Your task to perform on an android device: Open battery settings Image 0: 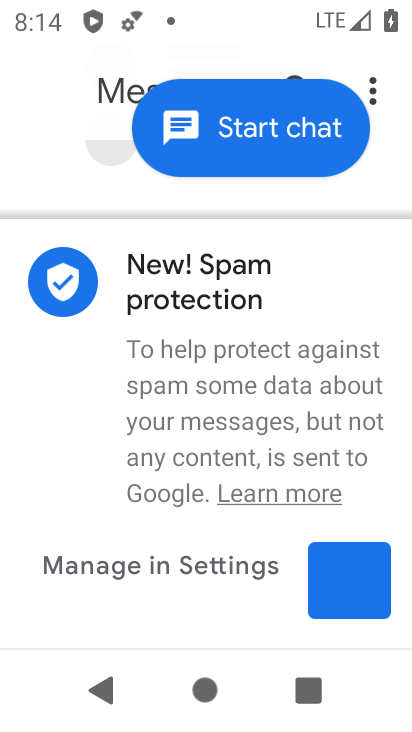
Step 0: press home button
Your task to perform on an android device: Open battery settings Image 1: 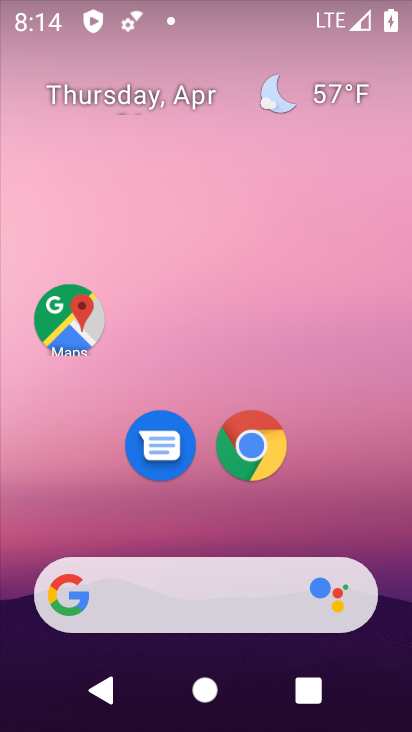
Step 1: drag from (354, 523) to (297, 14)
Your task to perform on an android device: Open battery settings Image 2: 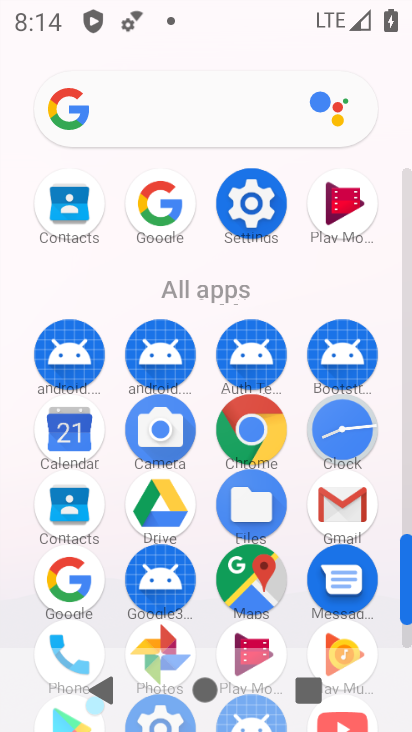
Step 2: click (247, 207)
Your task to perform on an android device: Open battery settings Image 3: 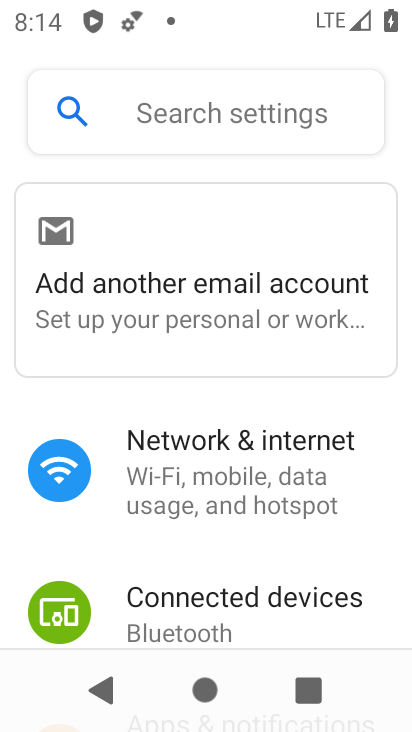
Step 3: drag from (326, 561) to (305, 15)
Your task to perform on an android device: Open battery settings Image 4: 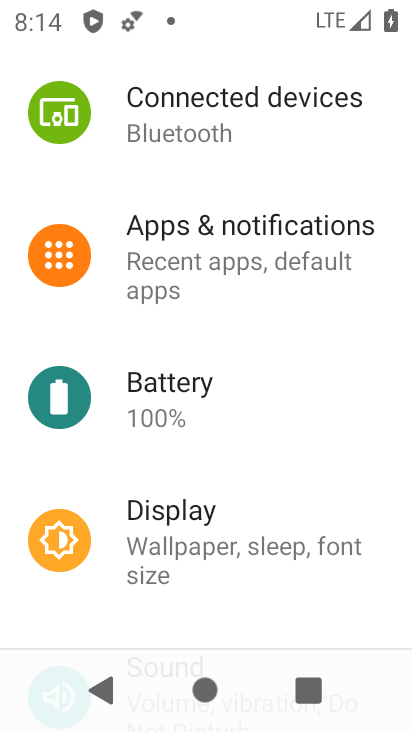
Step 4: click (156, 405)
Your task to perform on an android device: Open battery settings Image 5: 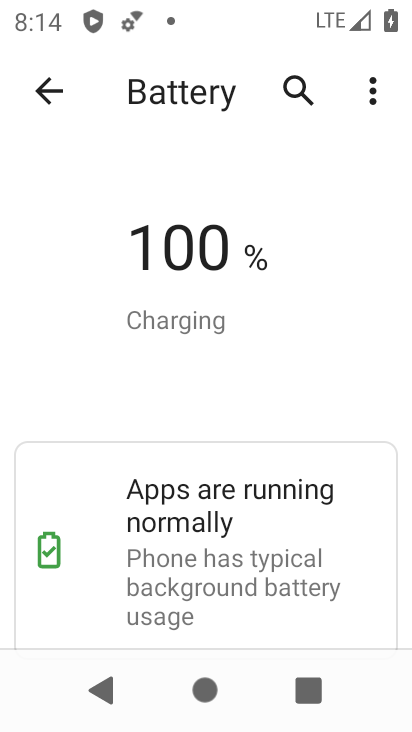
Step 5: task complete